Your task to perform on an android device: add a contact Image 0: 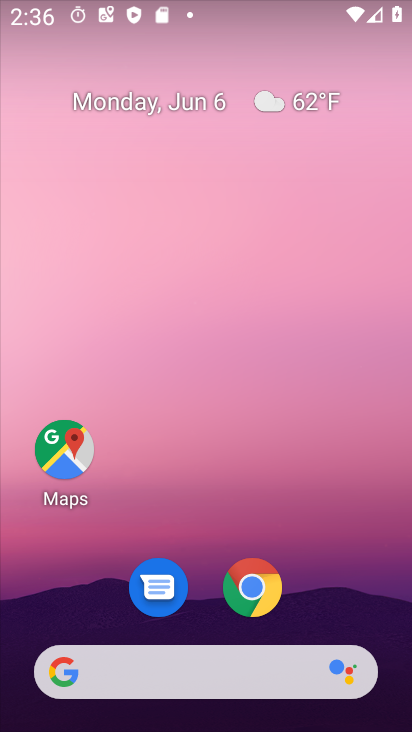
Step 0: drag from (383, 561) to (228, 0)
Your task to perform on an android device: add a contact Image 1: 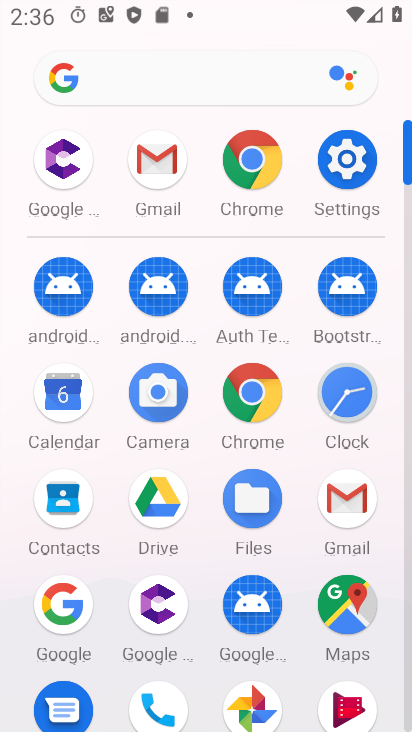
Step 1: drag from (27, 579) to (28, 217)
Your task to perform on an android device: add a contact Image 2: 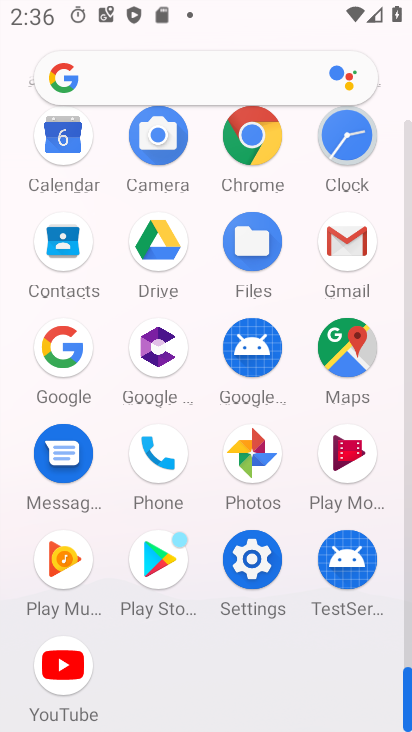
Step 2: click (59, 133)
Your task to perform on an android device: add a contact Image 3: 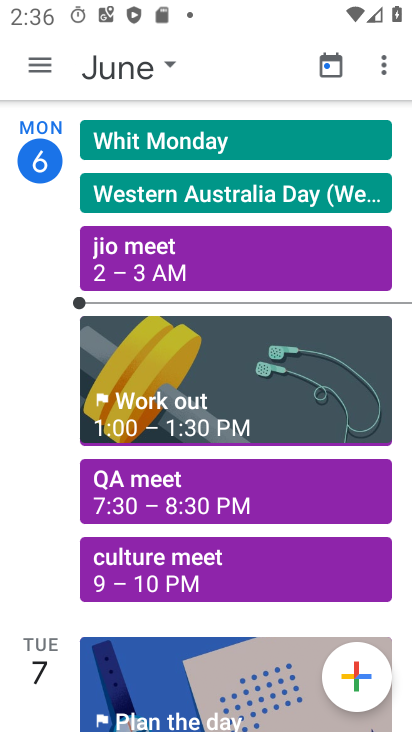
Step 3: press back button
Your task to perform on an android device: add a contact Image 4: 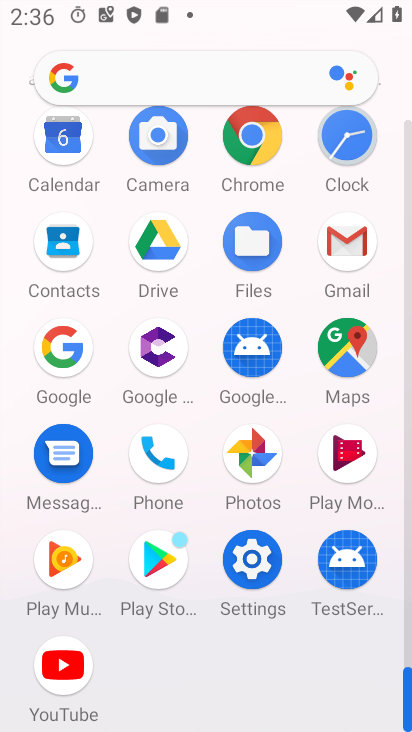
Step 4: click (63, 238)
Your task to perform on an android device: add a contact Image 5: 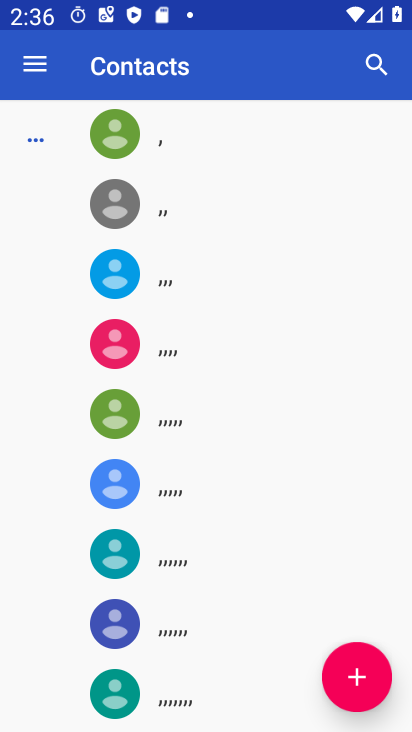
Step 5: click (366, 677)
Your task to perform on an android device: add a contact Image 6: 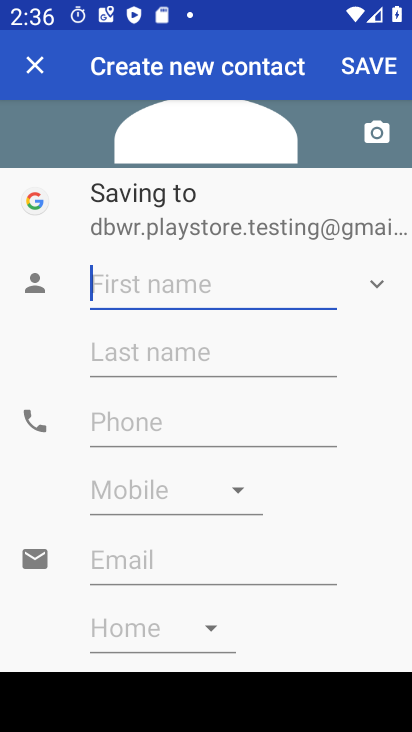
Step 6: type "CVJ"
Your task to perform on an android device: add a contact Image 7: 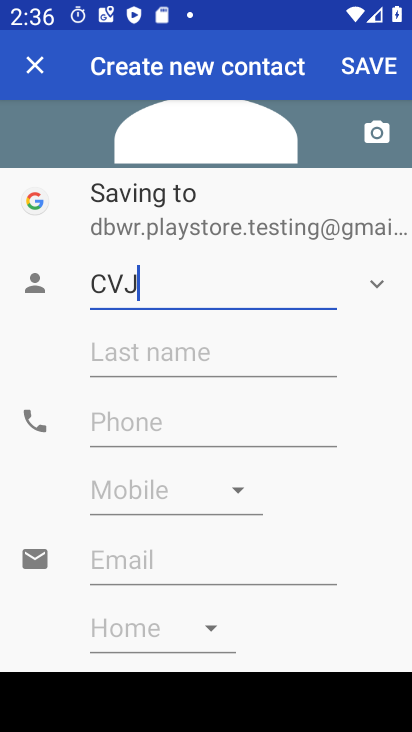
Step 7: type ""
Your task to perform on an android device: add a contact Image 8: 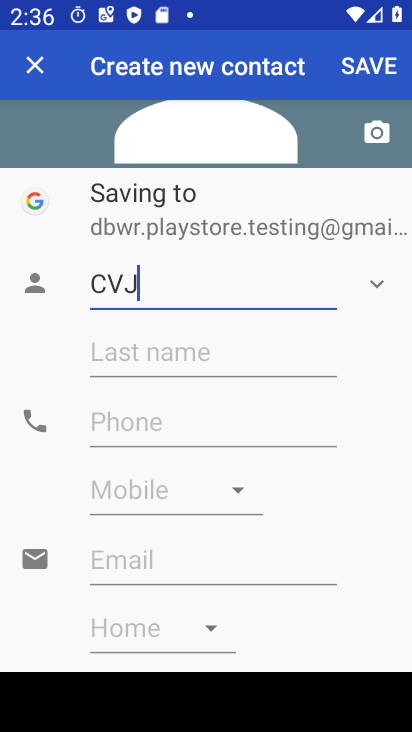
Step 8: click (134, 429)
Your task to perform on an android device: add a contact Image 9: 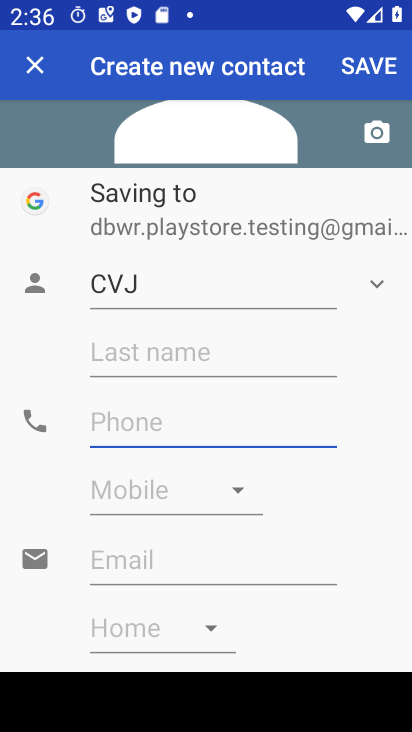
Step 9: type "4567890"
Your task to perform on an android device: add a contact Image 10: 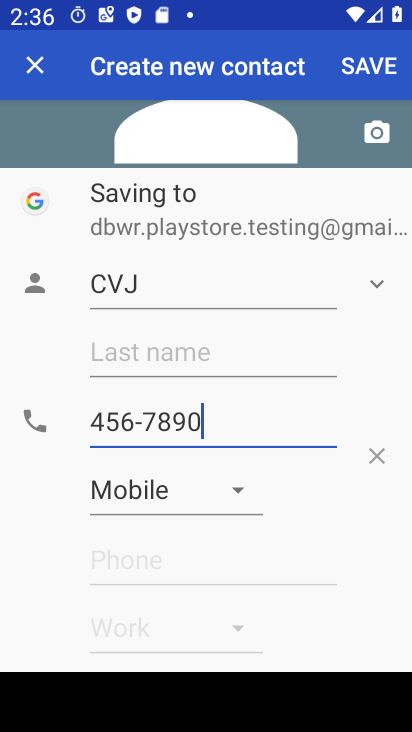
Step 10: type ""
Your task to perform on an android device: add a contact Image 11: 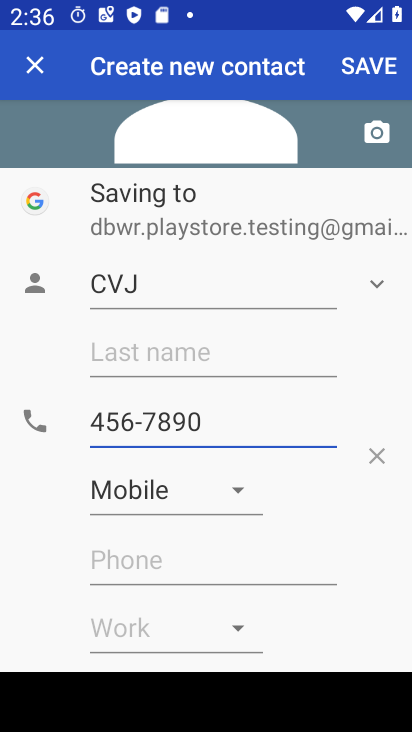
Step 11: click (374, 65)
Your task to perform on an android device: add a contact Image 12: 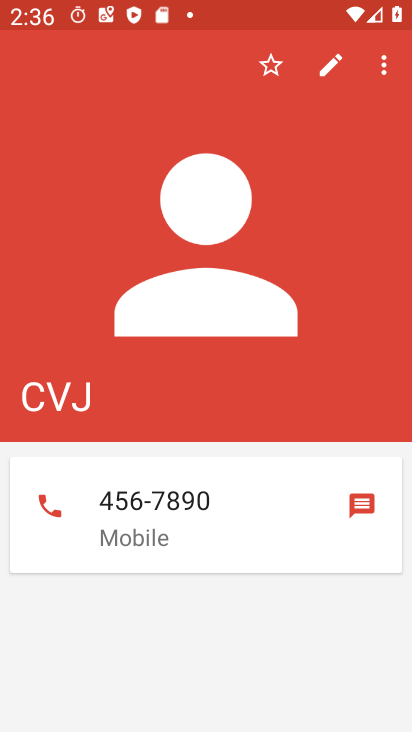
Step 12: task complete